Your task to perform on an android device: change the clock display to analog Image 0: 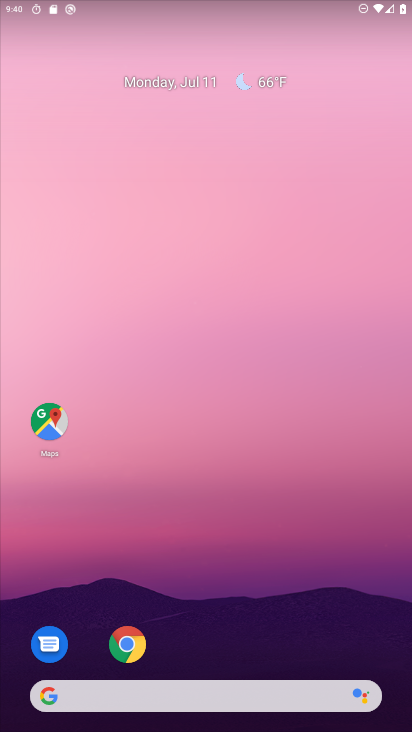
Step 0: drag from (306, 602) to (233, 161)
Your task to perform on an android device: change the clock display to analog Image 1: 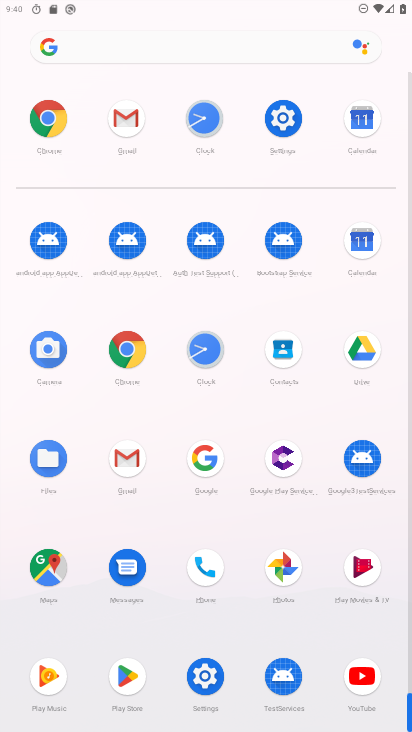
Step 1: click (206, 345)
Your task to perform on an android device: change the clock display to analog Image 2: 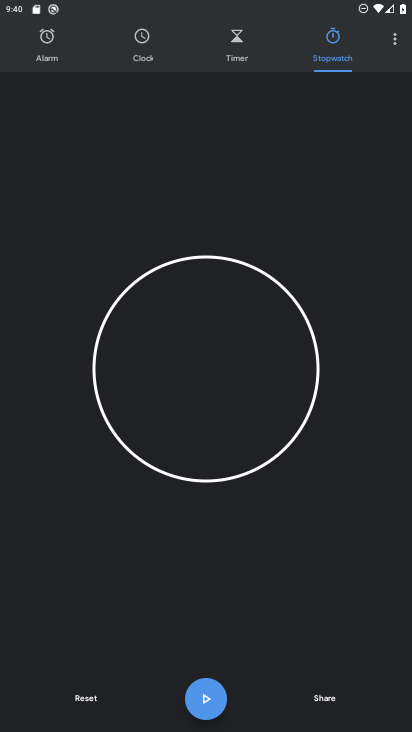
Step 2: click (400, 32)
Your task to perform on an android device: change the clock display to analog Image 3: 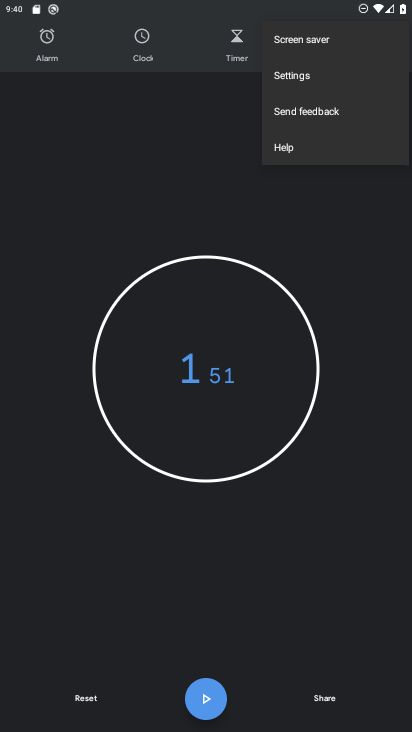
Step 3: click (286, 75)
Your task to perform on an android device: change the clock display to analog Image 4: 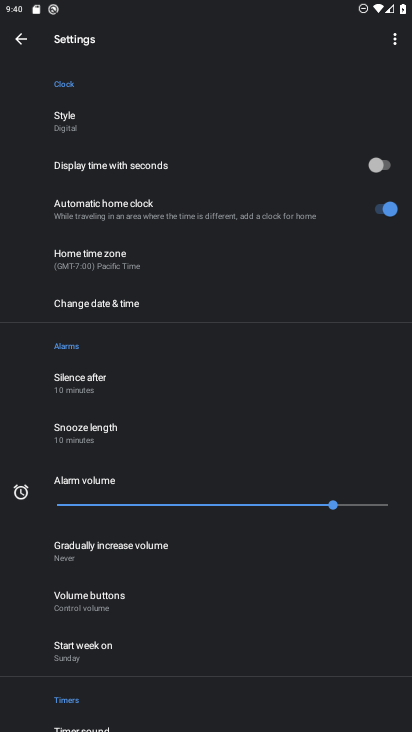
Step 4: click (71, 126)
Your task to perform on an android device: change the clock display to analog Image 5: 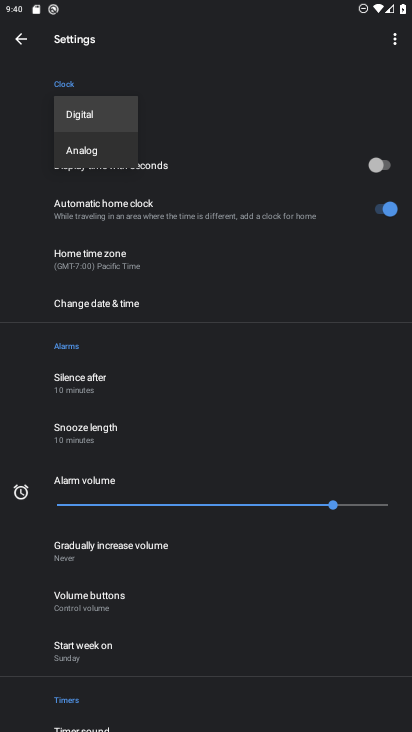
Step 5: click (114, 152)
Your task to perform on an android device: change the clock display to analog Image 6: 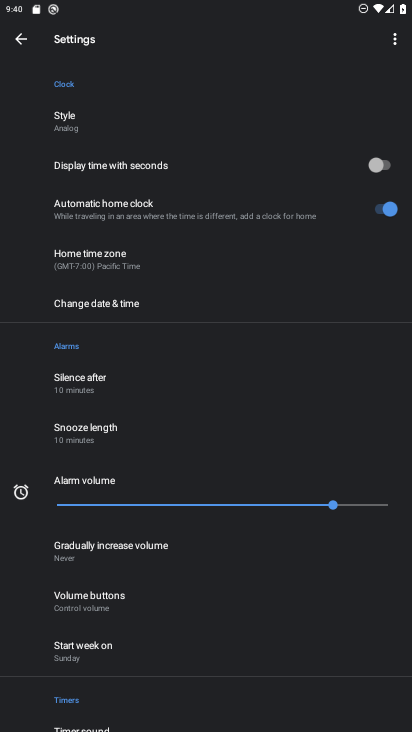
Step 6: task complete